Your task to perform on an android device: Open the calendar app, open the side menu, and click the "Day" option Image 0: 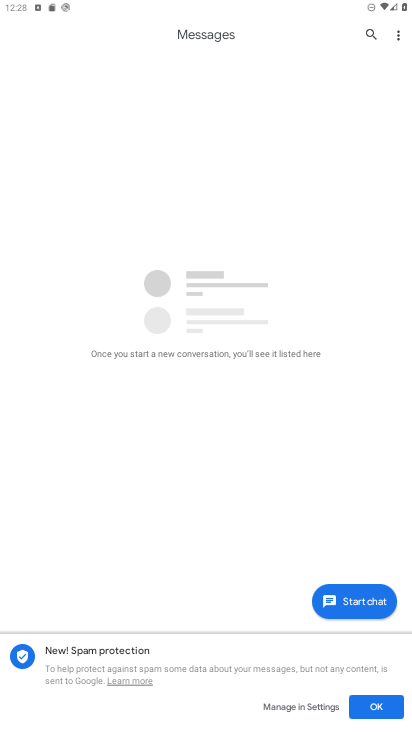
Step 0: press home button
Your task to perform on an android device: Open the calendar app, open the side menu, and click the "Day" option Image 1: 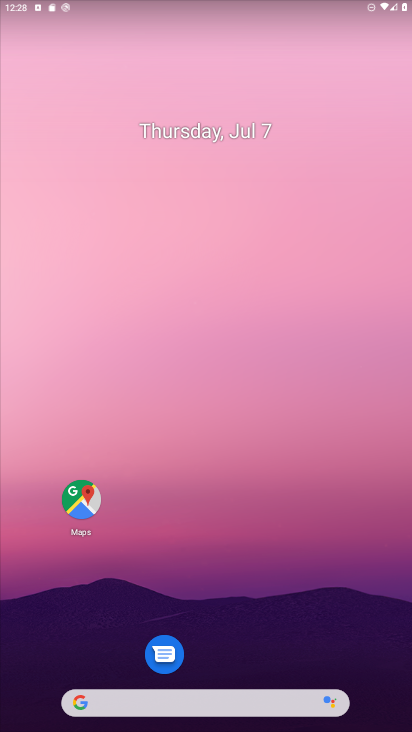
Step 1: click (253, 126)
Your task to perform on an android device: Open the calendar app, open the side menu, and click the "Day" option Image 2: 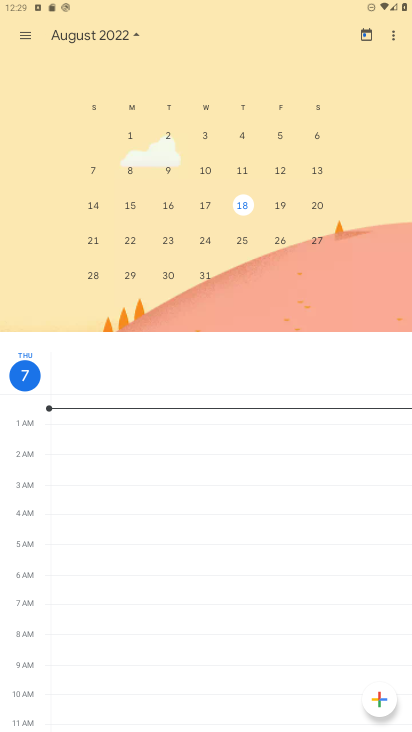
Step 2: click (28, 36)
Your task to perform on an android device: Open the calendar app, open the side menu, and click the "Day" option Image 3: 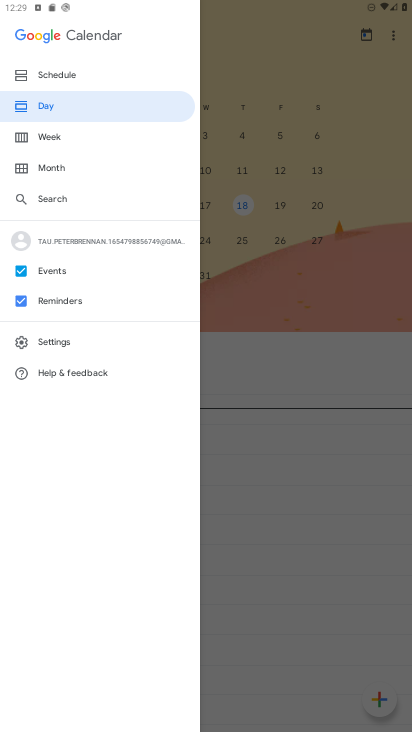
Step 3: click (99, 109)
Your task to perform on an android device: Open the calendar app, open the side menu, and click the "Day" option Image 4: 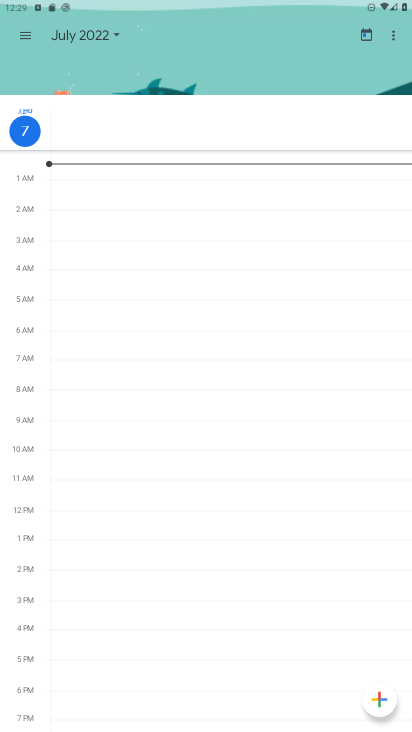
Step 4: task complete